Your task to perform on an android device: Go to wifi settings Image 0: 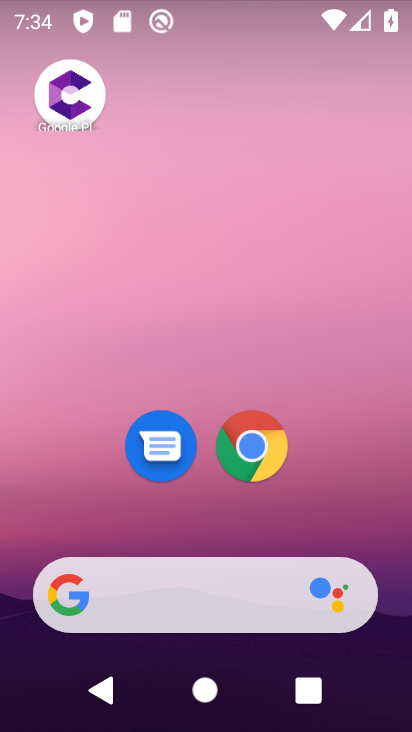
Step 0: drag from (356, 533) to (346, 4)
Your task to perform on an android device: Go to wifi settings Image 1: 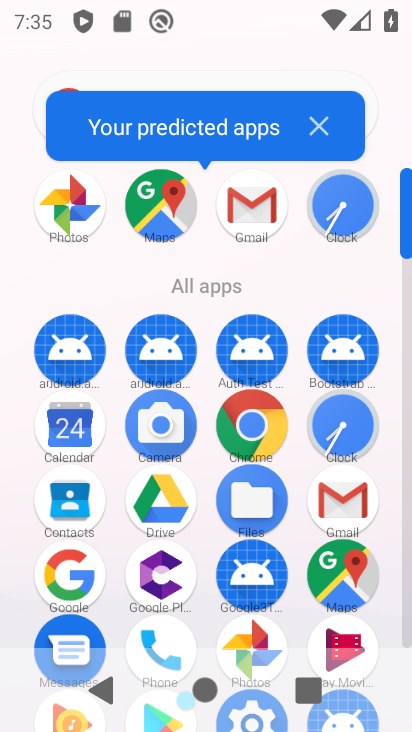
Step 1: click (410, 499)
Your task to perform on an android device: Go to wifi settings Image 2: 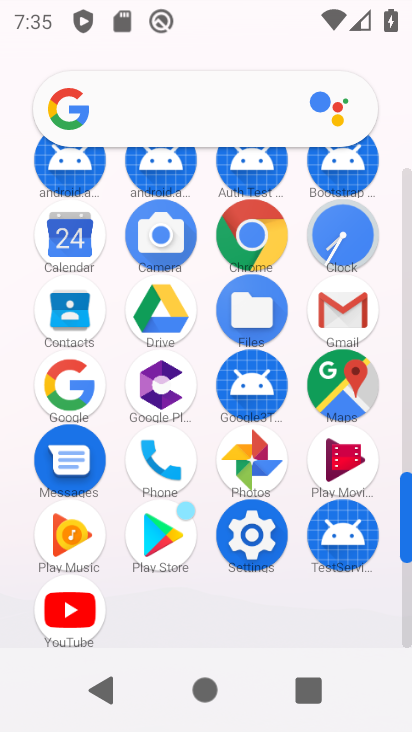
Step 2: click (252, 550)
Your task to perform on an android device: Go to wifi settings Image 3: 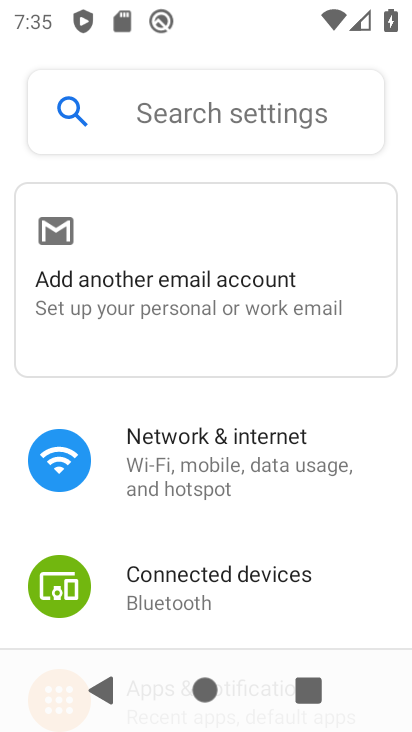
Step 3: click (185, 441)
Your task to perform on an android device: Go to wifi settings Image 4: 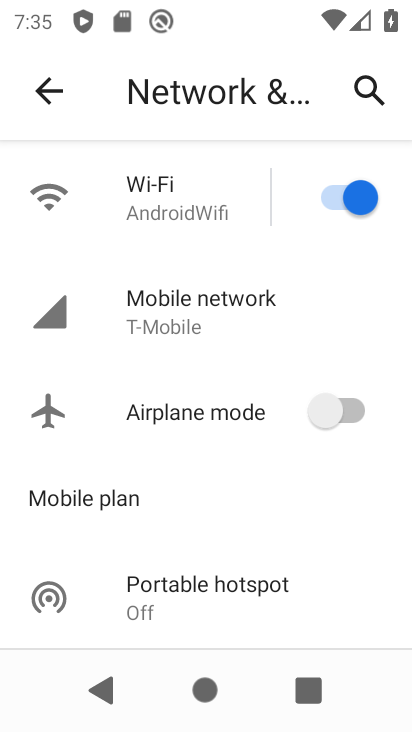
Step 4: click (81, 202)
Your task to perform on an android device: Go to wifi settings Image 5: 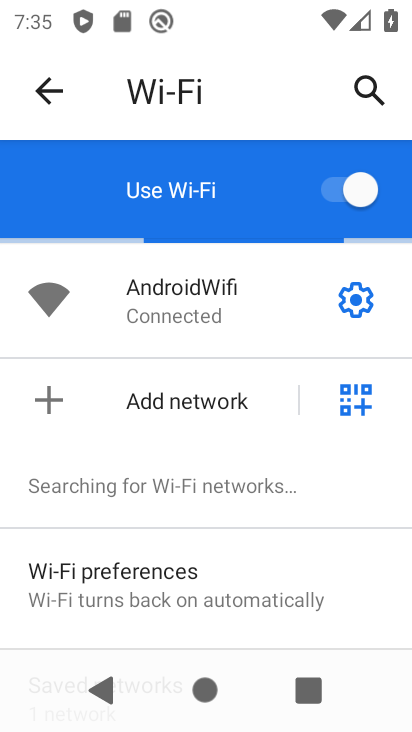
Step 5: task complete